Your task to perform on an android device: Open wifi settings Image 0: 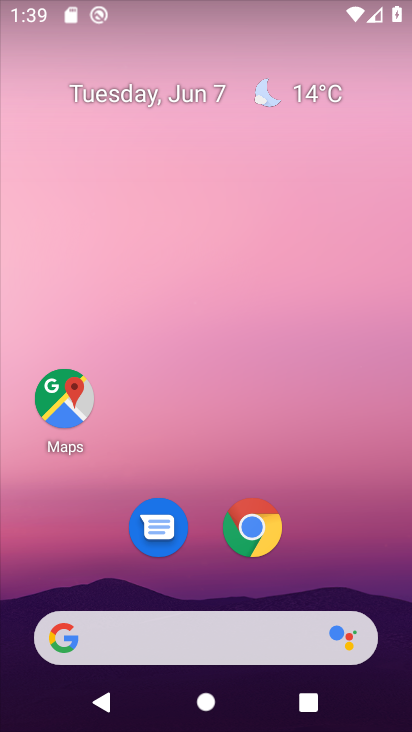
Step 0: drag from (302, 519) to (193, 305)
Your task to perform on an android device: Open wifi settings Image 1: 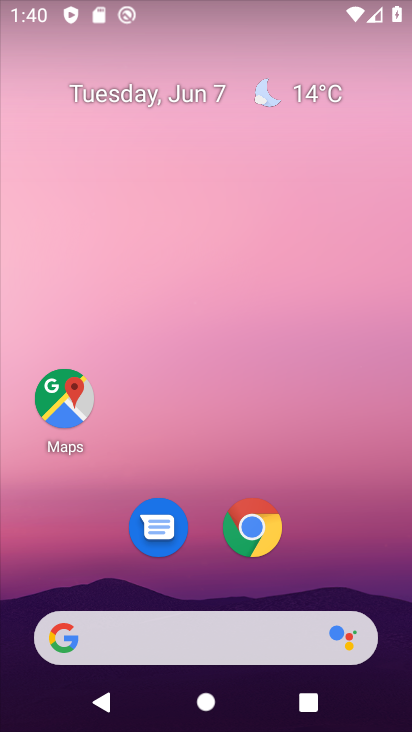
Step 1: drag from (355, 540) to (254, 196)
Your task to perform on an android device: Open wifi settings Image 2: 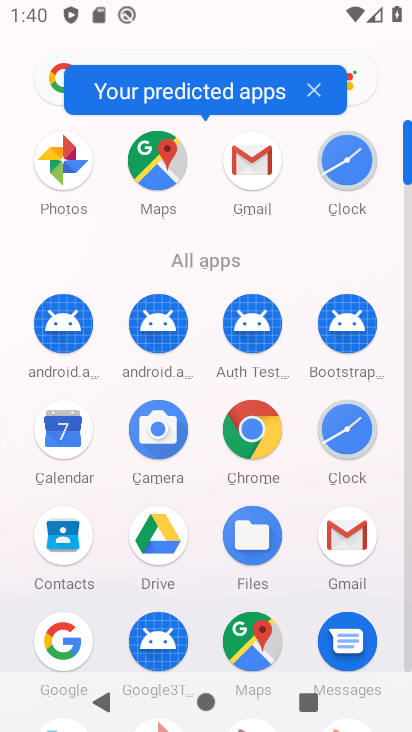
Step 2: drag from (321, 561) to (240, 351)
Your task to perform on an android device: Open wifi settings Image 3: 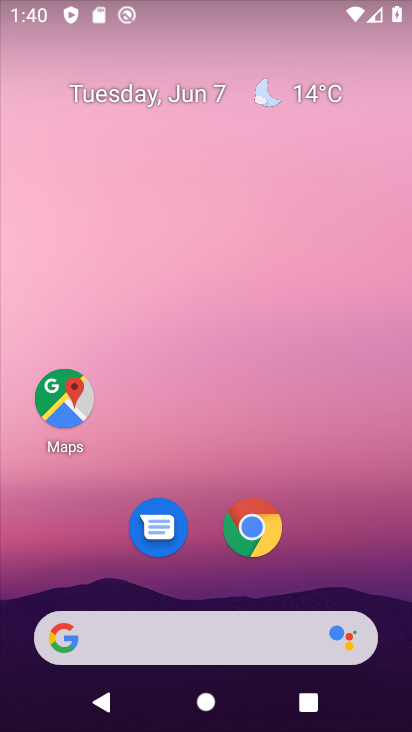
Step 3: drag from (291, 578) to (214, 243)
Your task to perform on an android device: Open wifi settings Image 4: 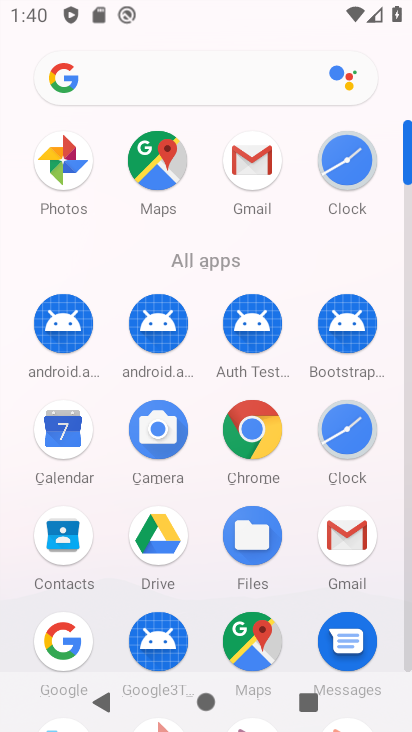
Step 4: drag from (191, 603) to (58, 158)
Your task to perform on an android device: Open wifi settings Image 5: 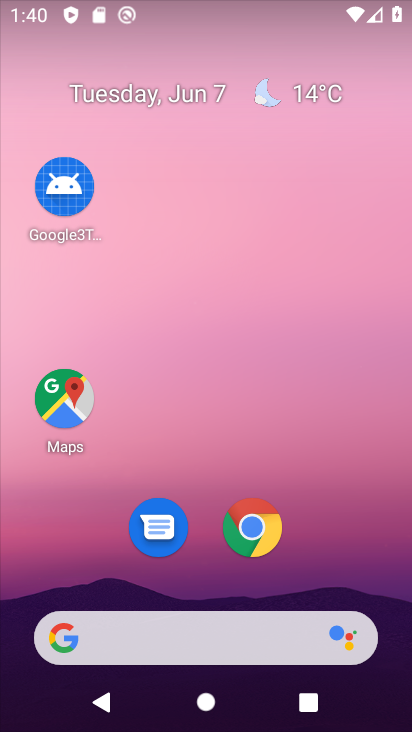
Step 5: drag from (332, 599) to (359, 5)
Your task to perform on an android device: Open wifi settings Image 6: 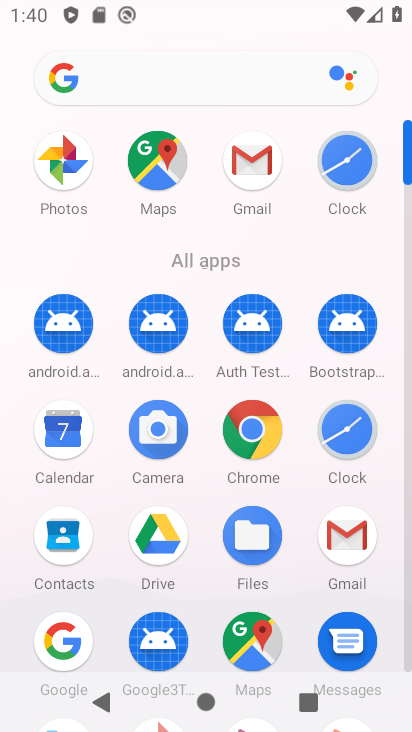
Step 6: drag from (301, 551) to (287, 174)
Your task to perform on an android device: Open wifi settings Image 7: 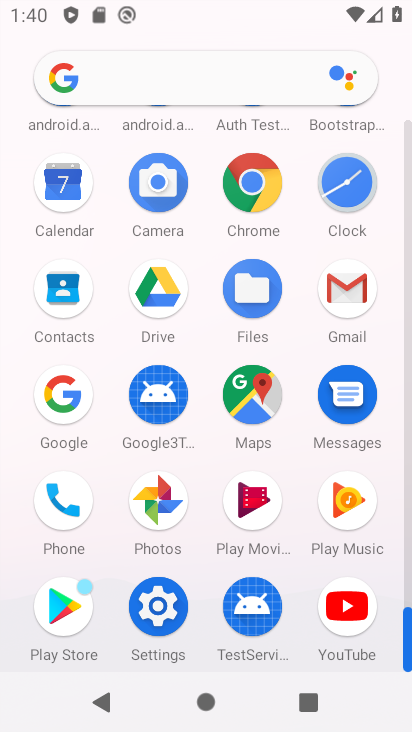
Step 7: click (145, 599)
Your task to perform on an android device: Open wifi settings Image 8: 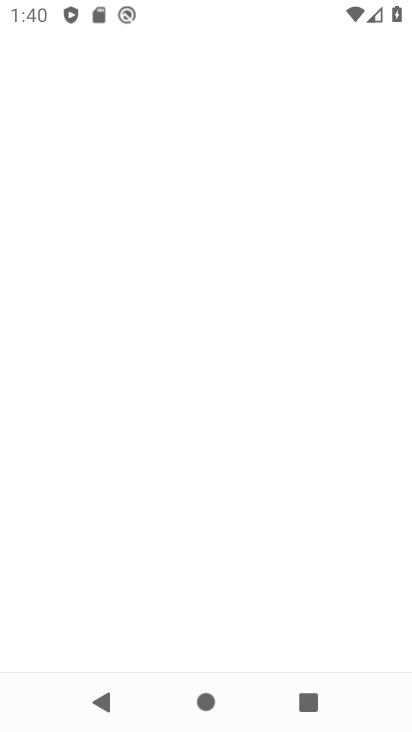
Step 8: click (147, 574)
Your task to perform on an android device: Open wifi settings Image 9: 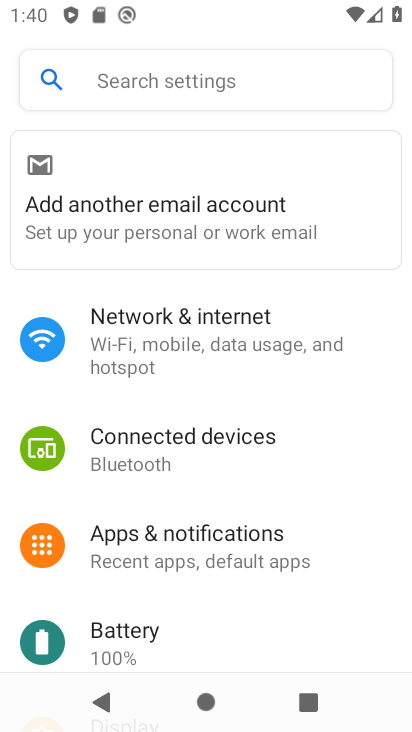
Step 9: click (107, 364)
Your task to perform on an android device: Open wifi settings Image 10: 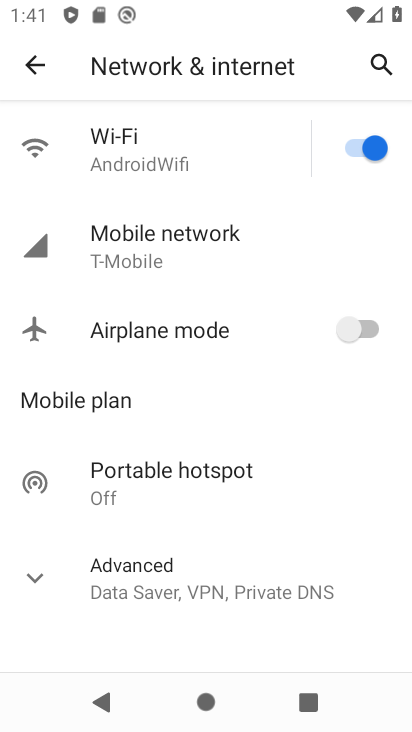
Step 10: click (181, 152)
Your task to perform on an android device: Open wifi settings Image 11: 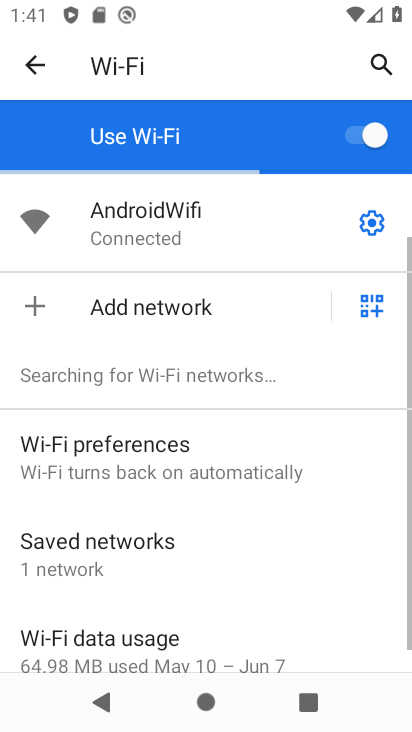
Step 11: task complete